Your task to perform on an android device: toggle airplane mode Image 0: 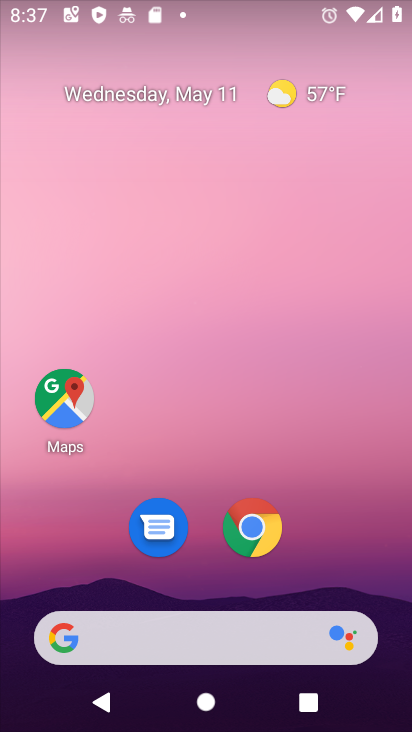
Step 0: drag from (366, 568) to (343, 23)
Your task to perform on an android device: toggle airplane mode Image 1: 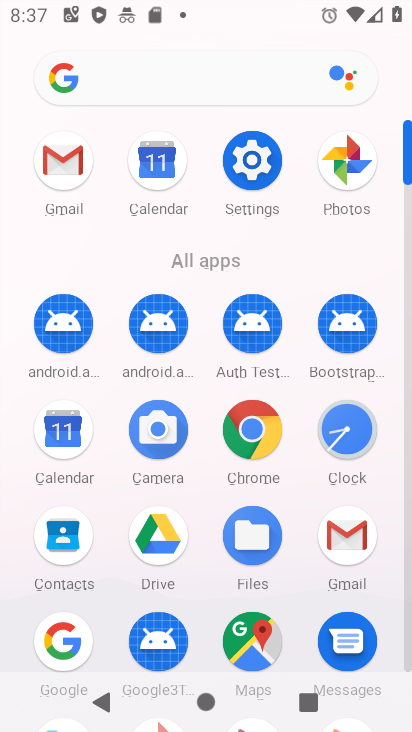
Step 1: click (251, 168)
Your task to perform on an android device: toggle airplane mode Image 2: 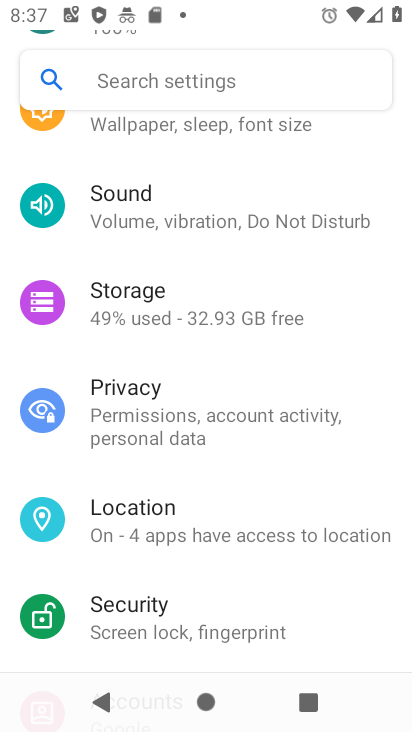
Step 2: drag from (251, 168) to (268, 537)
Your task to perform on an android device: toggle airplane mode Image 3: 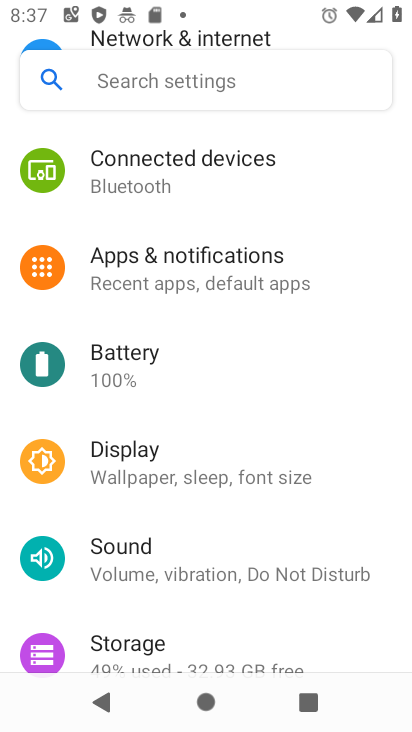
Step 3: drag from (287, 243) to (290, 604)
Your task to perform on an android device: toggle airplane mode Image 4: 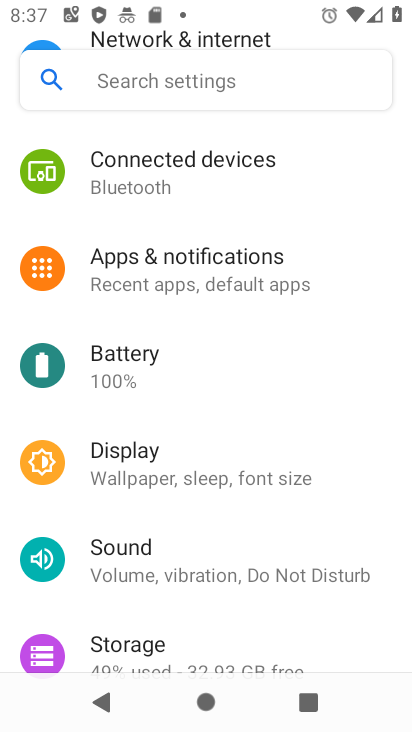
Step 4: drag from (333, 357) to (350, 577)
Your task to perform on an android device: toggle airplane mode Image 5: 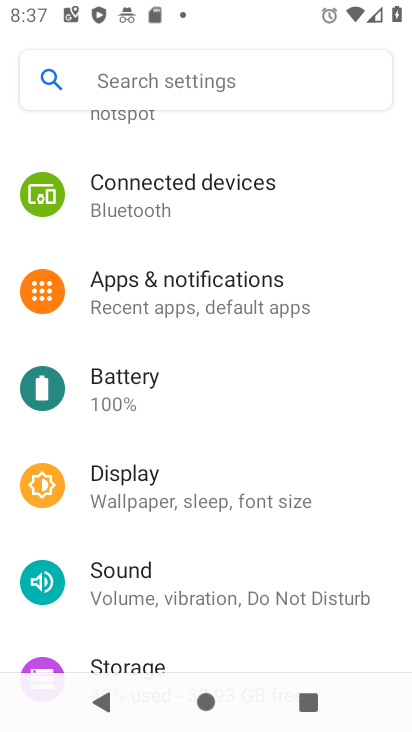
Step 5: drag from (293, 214) to (273, 593)
Your task to perform on an android device: toggle airplane mode Image 6: 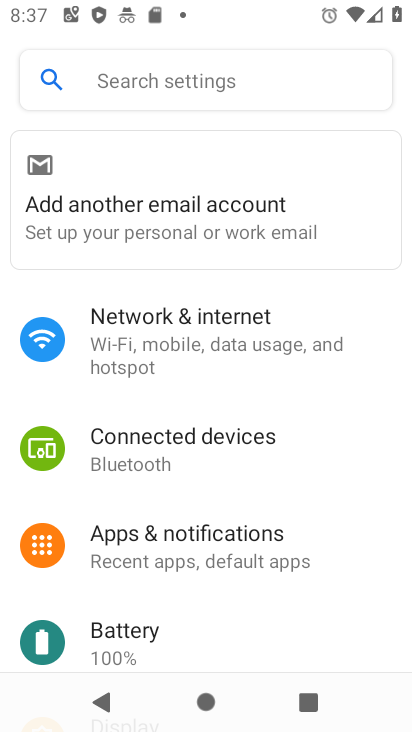
Step 6: click (204, 342)
Your task to perform on an android device: toggle airplane mode Image 7: 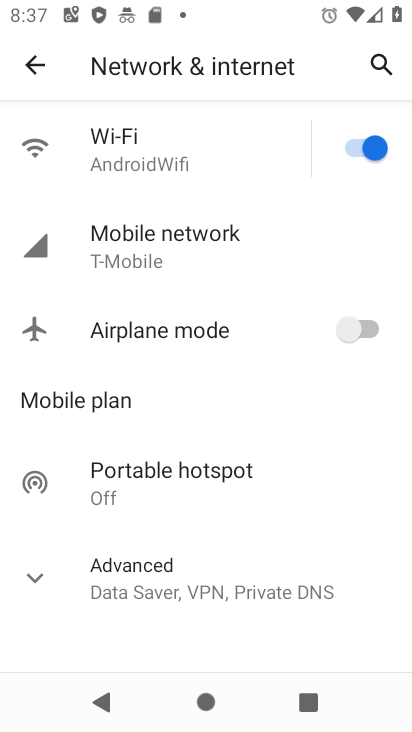
Step 7: click (342, 328)
Your task to perform on an android device: toggle airplane mode Image 8: 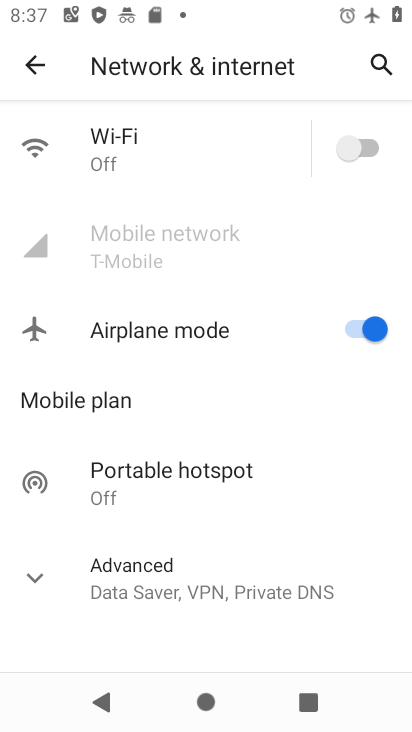
Step 8: task complete